Your task to perform on an android device: Open Maps and search for coffee Image 0: 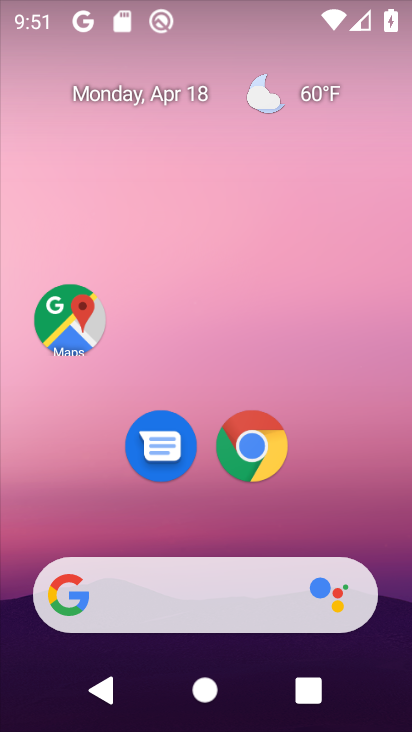
Step 0: drag from (377, 494) to (347, 123)
Your task to perform on an android device: Open Maps and search for coffee Image 1: 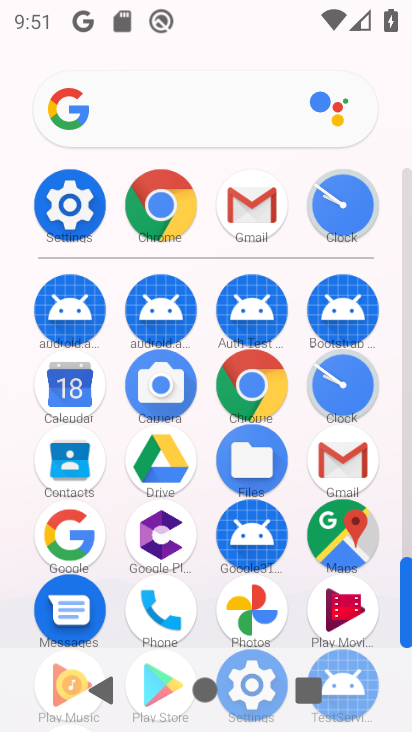
Step 1: click (347, 535)
Your task to perform on an android device: Open Maps and search for coffee Image 2: 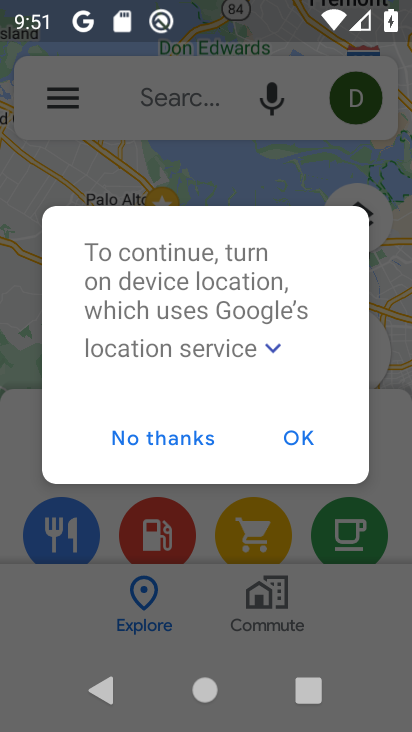
Step 2: click (160, 443)
Your task to perform on an android device: Open Maps and search for coffee Image 3: 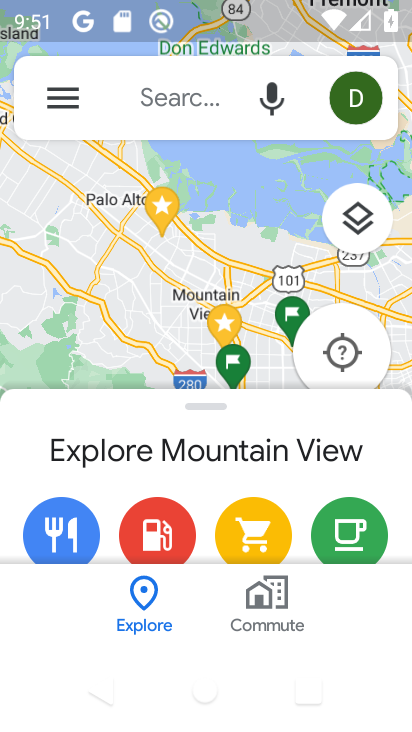
Step 3: click (161, 83)
Your task to perform on an android device: Open Maps and search for coffee Image 4: 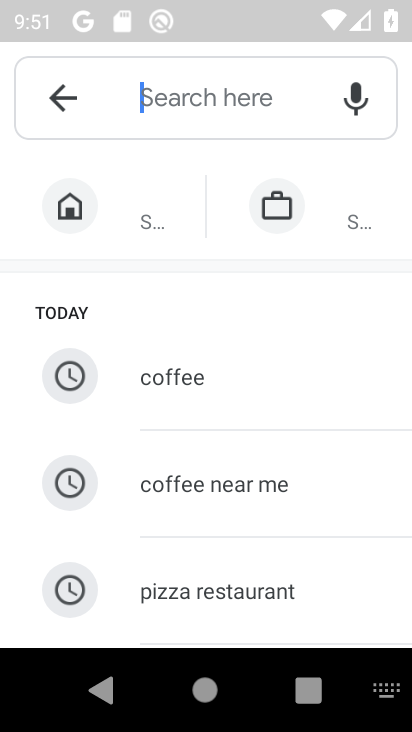
Step 4: type "coffee"
Your task to perform on an android device: Open Maps and search for coffee Image 5: 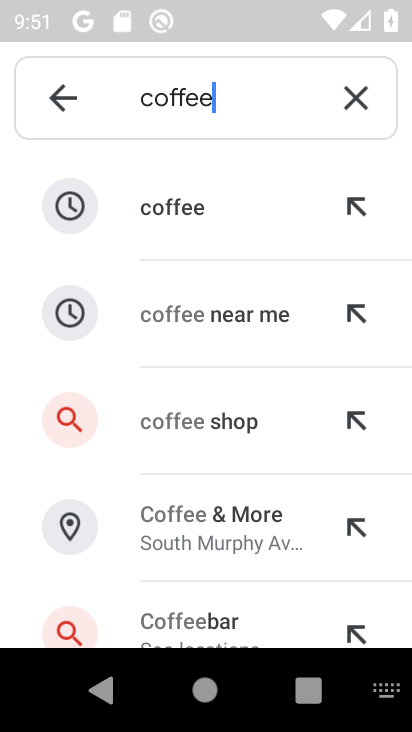
Step 5: click (182, 214)
Your task to perform on an android device: Open Maps and search for coffee Image 6: 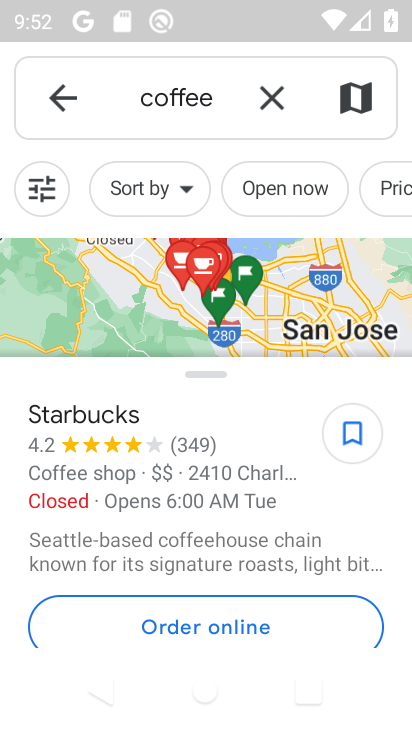
Step 6: task complete